Your task to perform on an android device: turn on location history Image 0: 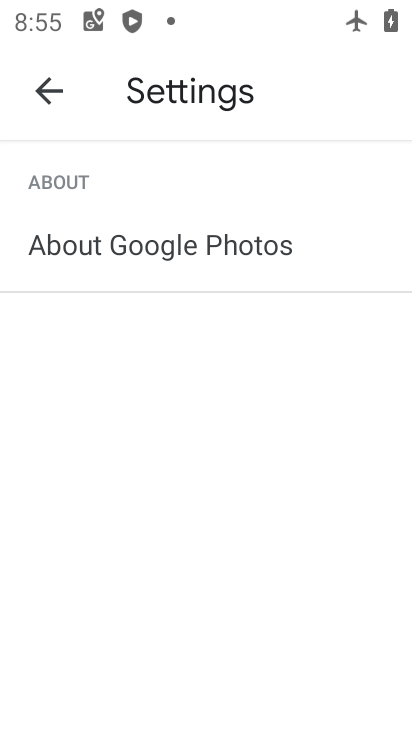
Step 0: press home button
Your task to perform on an android device: turn on location history Image 1: 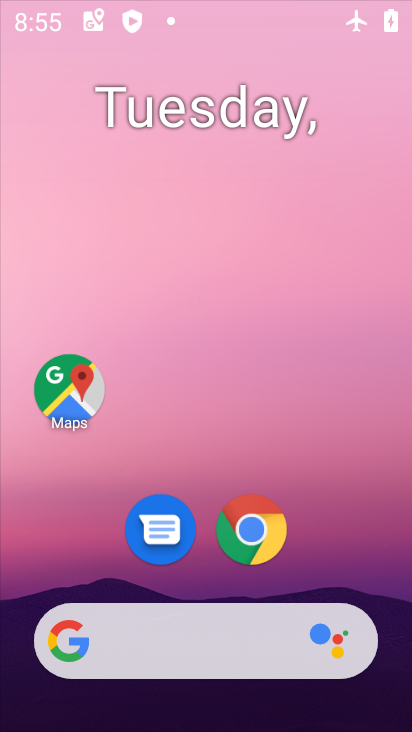
Step 1: drag from (258, 664) to (319, 148)
Your task to perform on an android device: turn on location history Image 2: 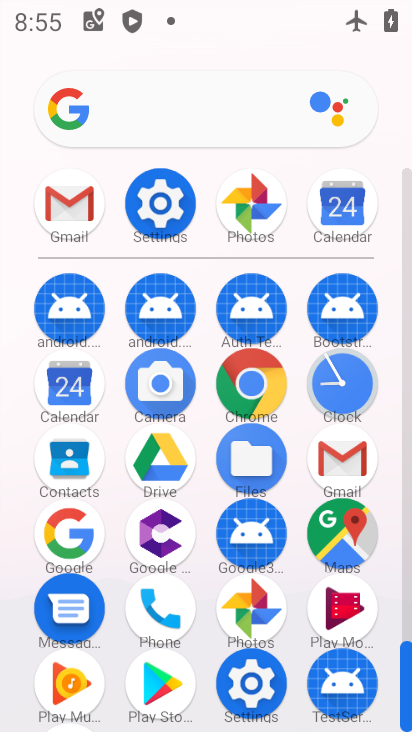
Step 2: click (254, 695)
Your task to perform on an android device: turn on location history Image 3: 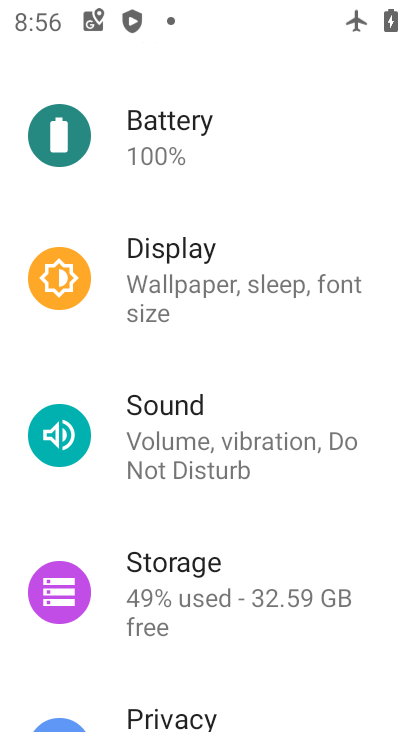
Step 3: drag from (273, 549) to (353, 85)
Your task to perform on an android device: turn on location history Image 4: 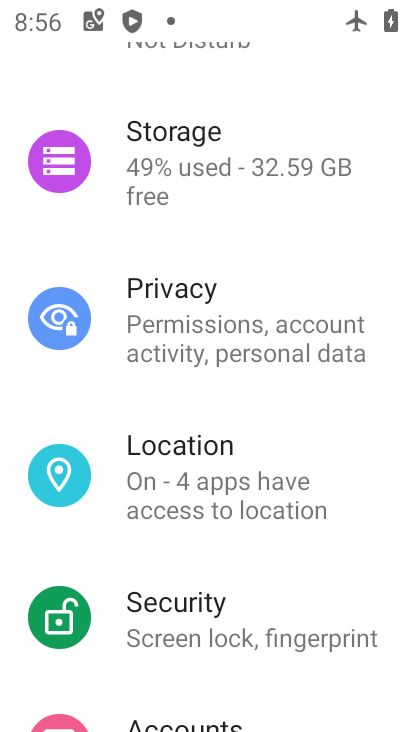
Step 4: click (217, 471)
Your task to perform on an android device: turn on location history Image 5: 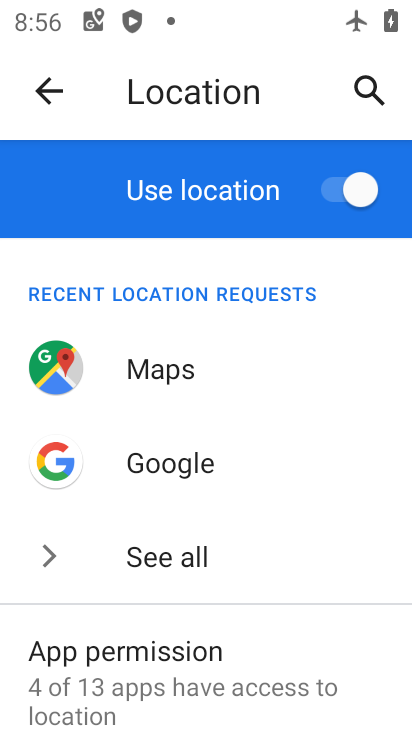
Step 5: drag from (185, 595) to (228, 412)
Your task to perform on an android device: turn on location history Image 6: 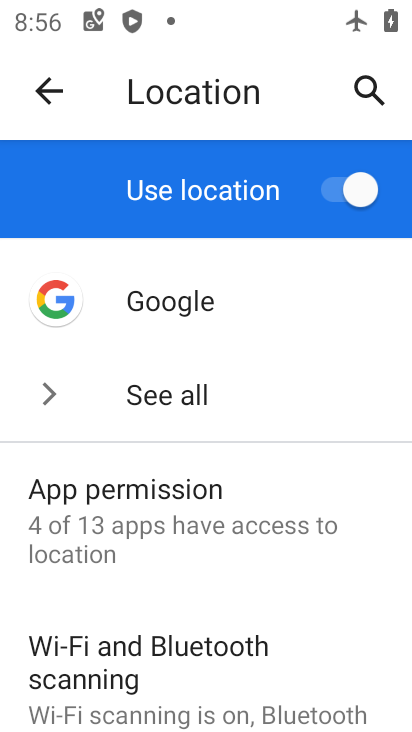
Step 6: drag from (228, 635) to (330, 221)
Your task to perform on an android device: turn on location history Image 7: 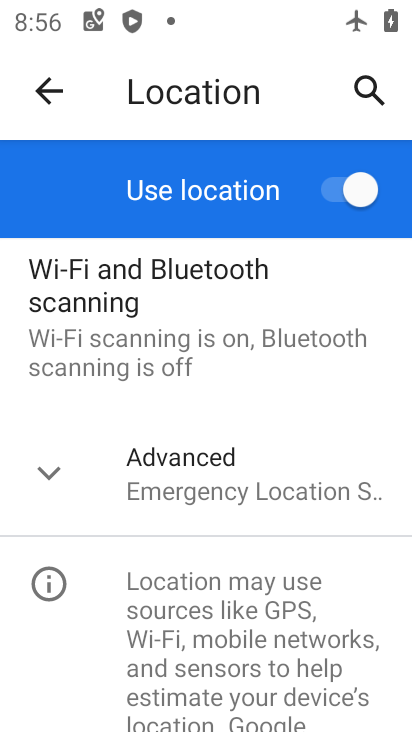
Step 7: click (198, 497)
Your task to perform on an android device: turn on location history Image 8: 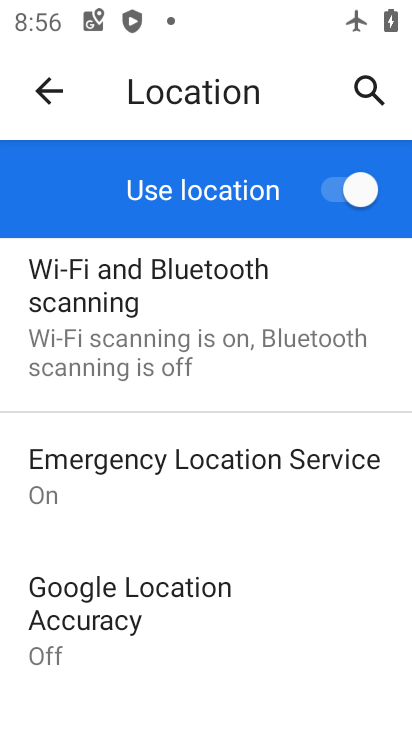
Step 8: drag from (222, 633) to (281, 377)
Your task to perform on an android device: turn on location history Image 9: 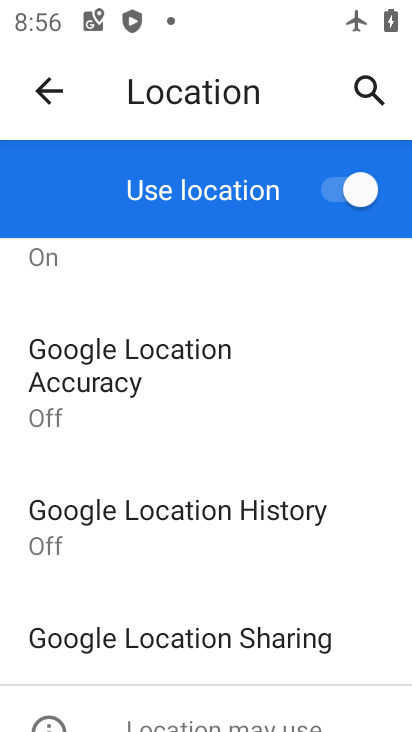
Step 9: click (281, 538)
Your task to perform on an android device: turn on location history Image 10: 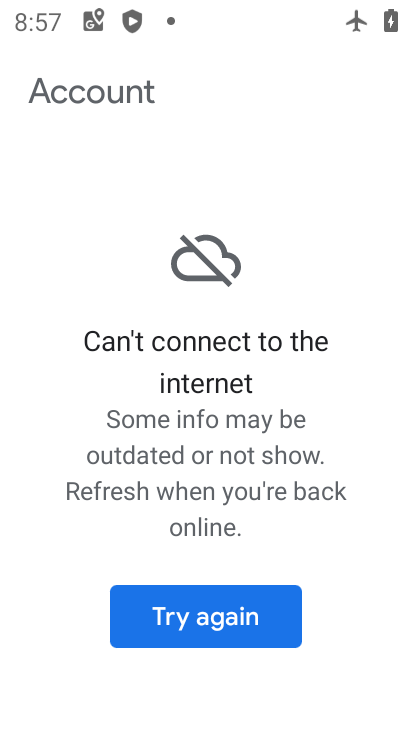
Step 10: task complete